Your task to perform on an android device: install app "PUBG MOBILE" Image 0: 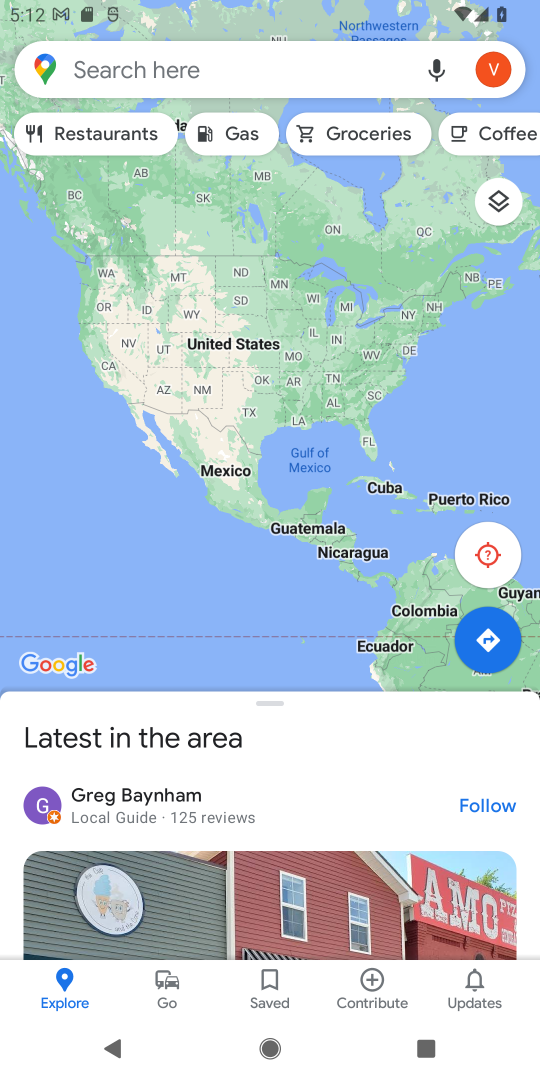
Step 0: press home button
Your task to perform on an android device: install app "PUBG MOBILE" Image 1: 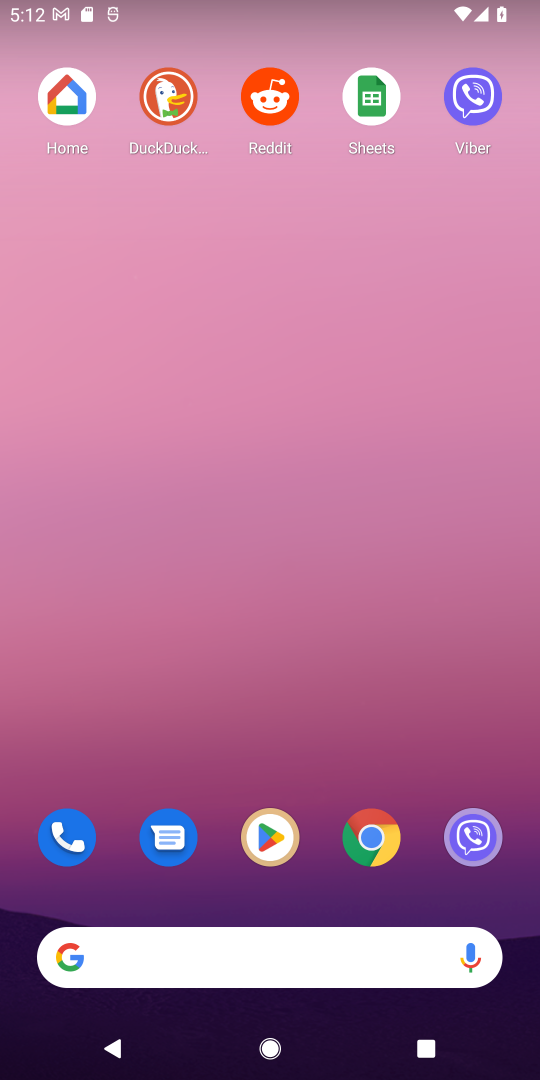
Step 1: press home button
Your task to perform on an android device: install app "PUBG MOBILE" Image 2: 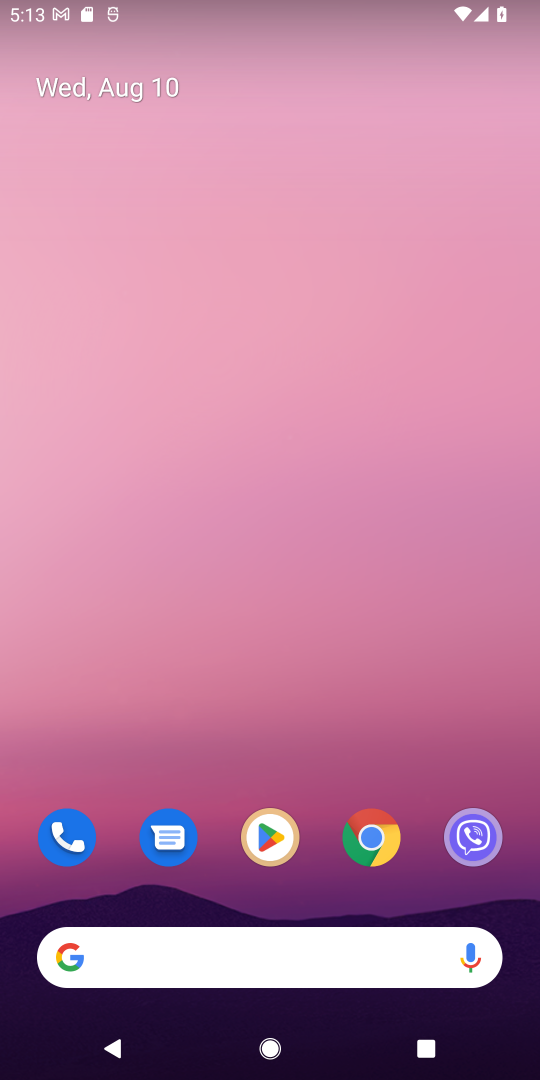
Step 2: click (266, 839)
Your task to perform on an android device: install app "PUBG MOBILE" Image 3: 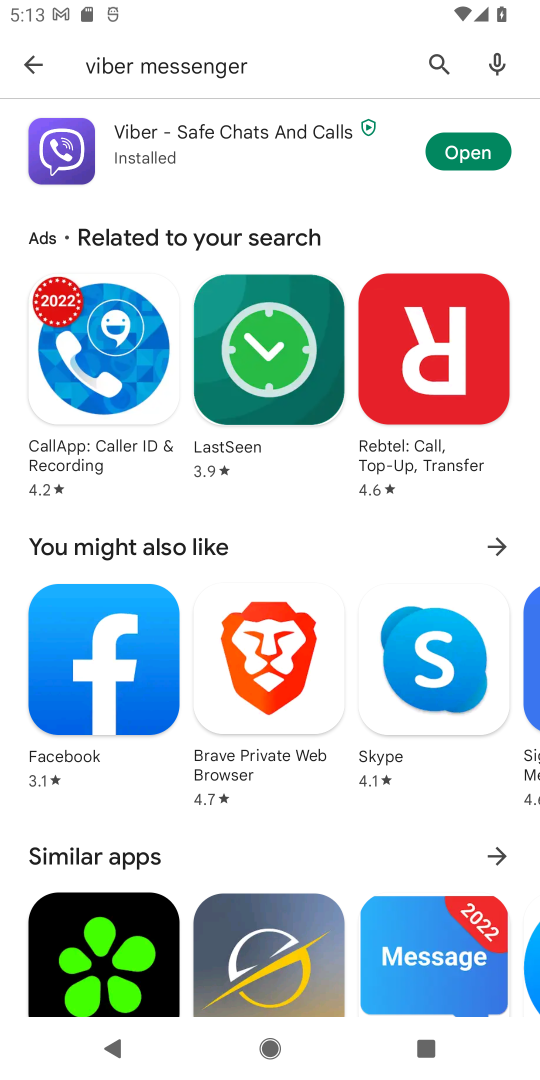
Step 3: click (436, 57)
Your task to perform on an android device: install app "PUBG MOBILE" Image 4: 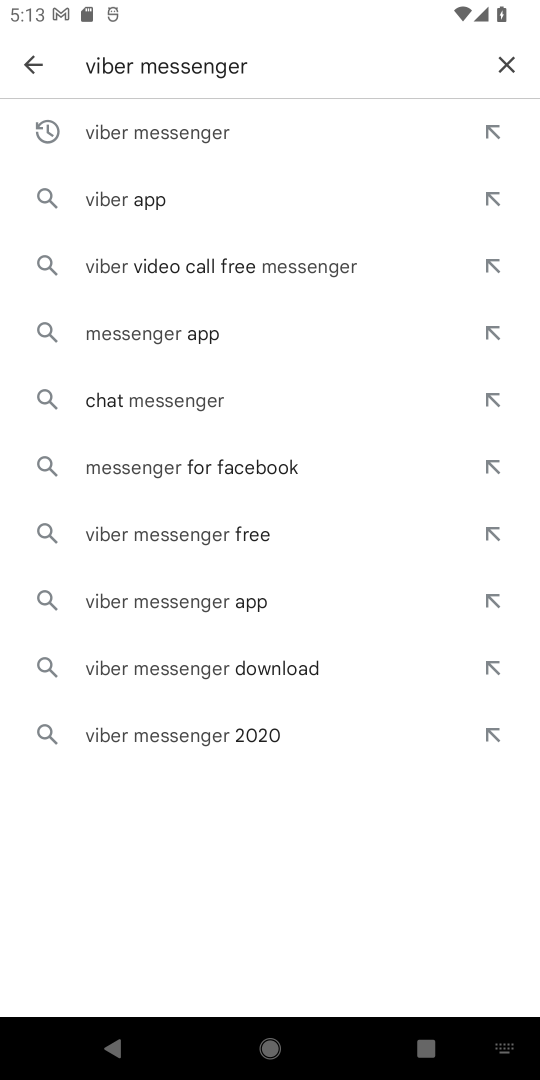
Step 4: click (503, 62)
Your task to perform on an android device: install app "PUBG MOBILE" Image 5: 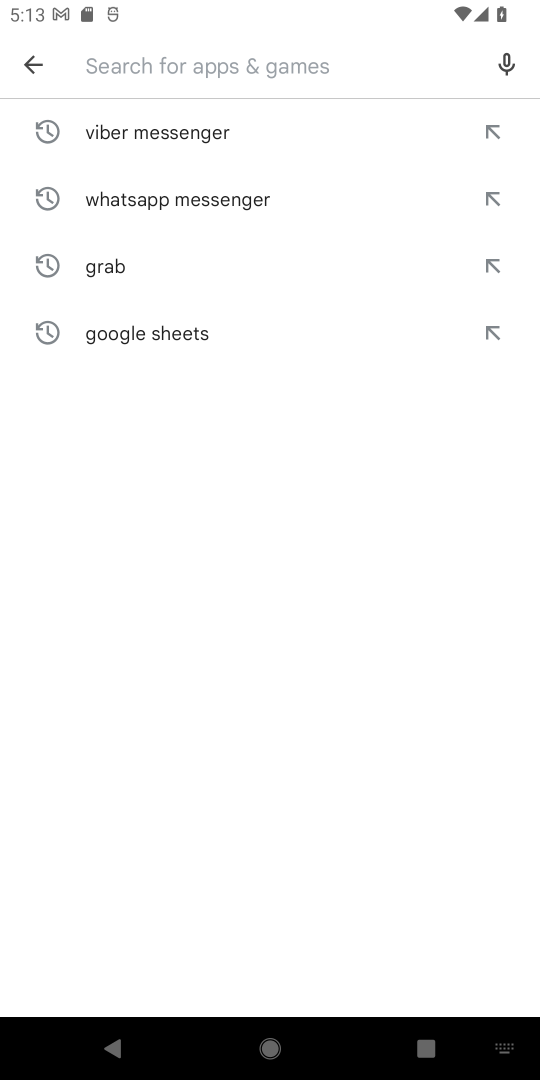
Step 5: type "PUBG MOBILE"
Your task to perform on an android device: install app "PUBG MOBILE" Image 6: 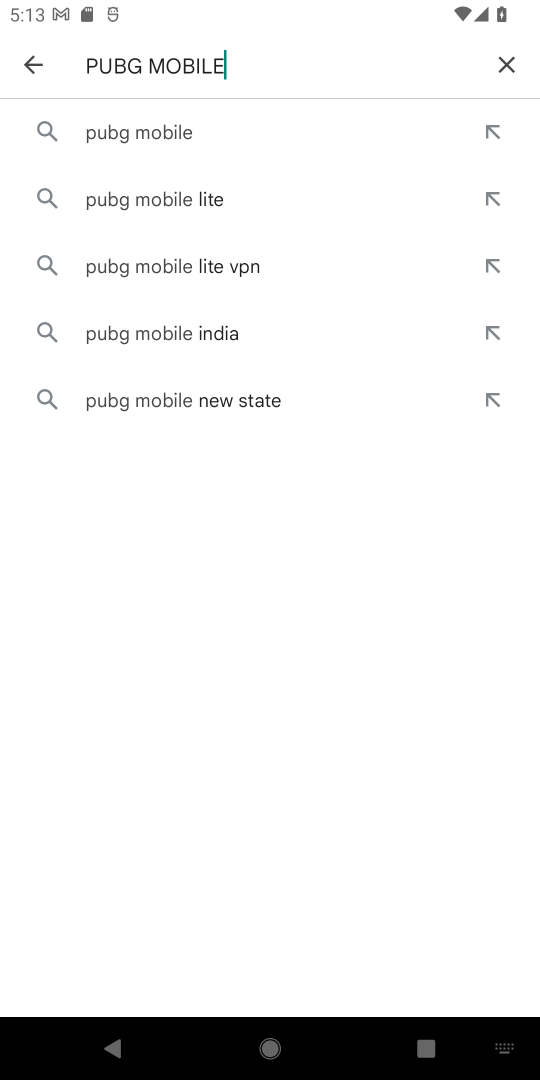
Step 6: click (200, 132)
Your task to perform on an android device: install app "PUBG MOBILE" Image 7: 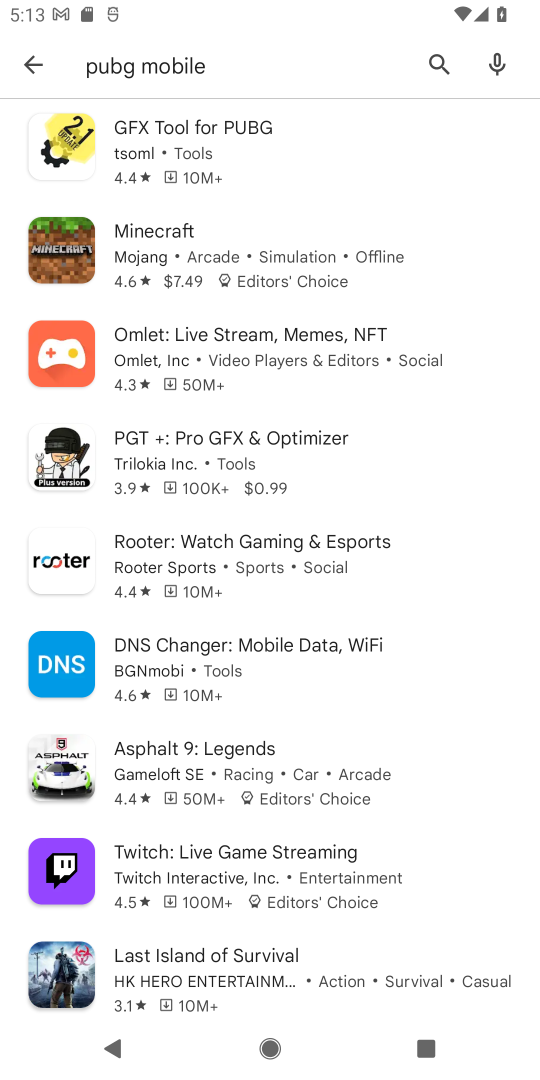
Step 7: task complete